Your task to perform on an android device: Show me the alarms in the clock app Image 0: 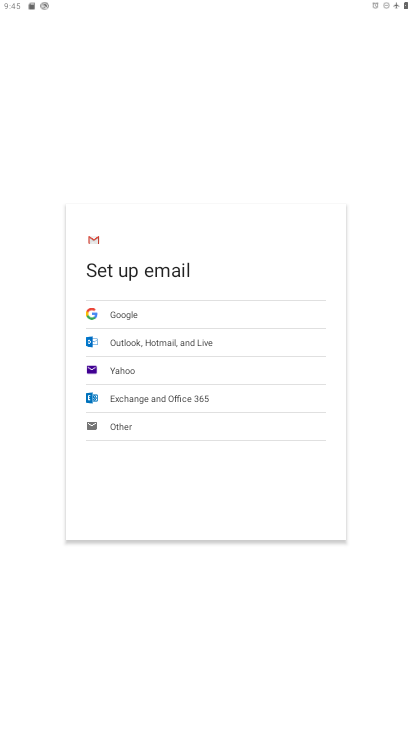
Step 0: press home button
Your task to perform on an android device: Show me the alarms in the clock app Image 1: 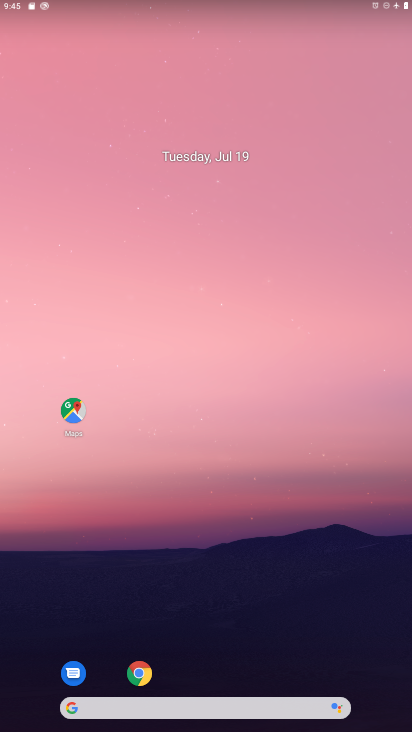
Step 1: drag from (372, 673) to (315, 153)
Your task to perform on an android device: Show me the alarms in the clock app Image 2: 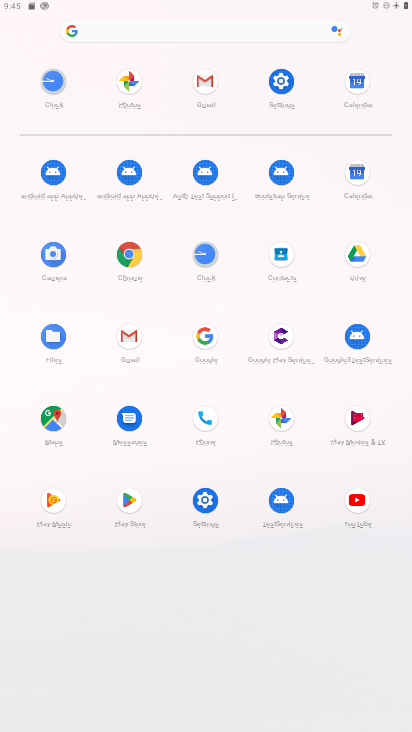
Step 2: click (203, 253)
Your task to perform on an android device: Show me the alarms in the clock app Image 3: 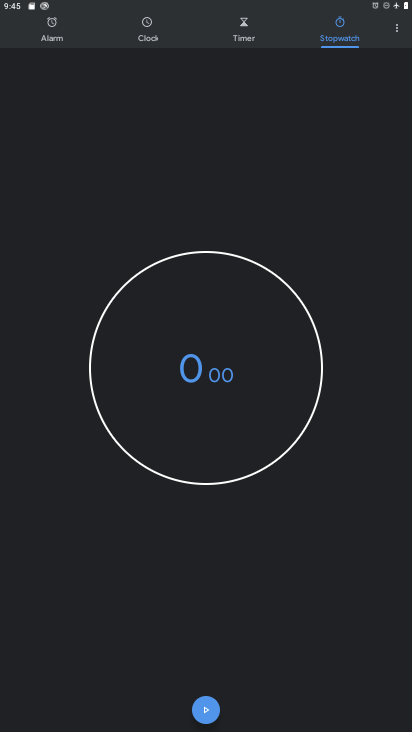
Step 3: click (51, 24)
Your task to perform on an android device: Show me the alarms in the clock app Image 4: 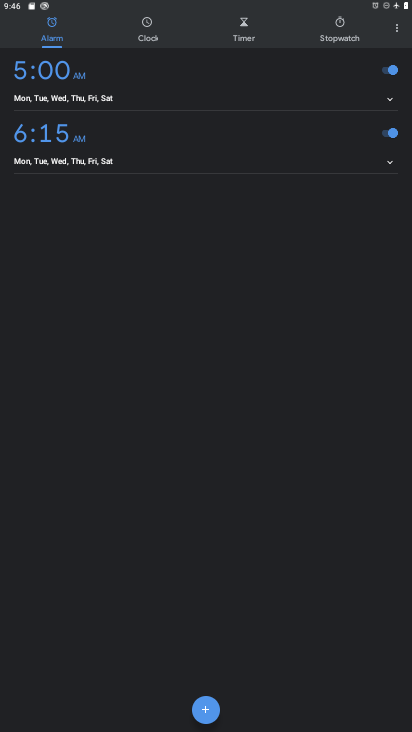
Step 4: task complete